Your task to perform on an android device: open a bookmark in the chrome app Image 0: 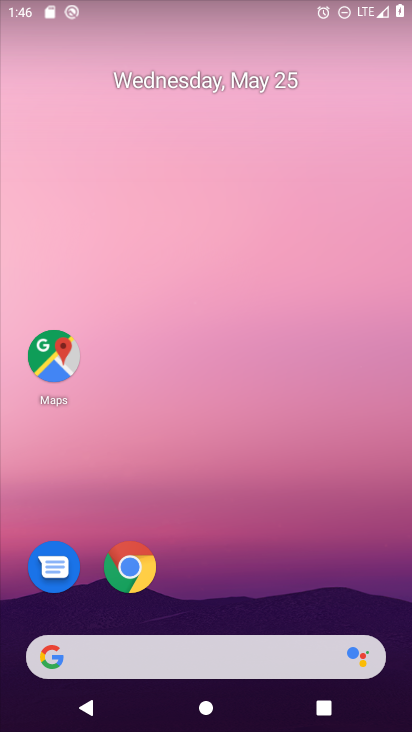
Step 0: click (128, 568)
Your task to perform on an android device: open a bookmark in the chrome app Image 1: 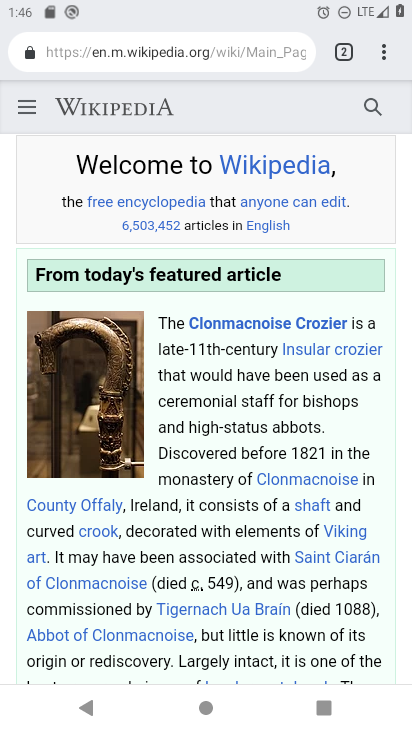
Step 1: click (380, 52)
Your task to perform on an android device: open a bookmark in the chrome app Image 2: 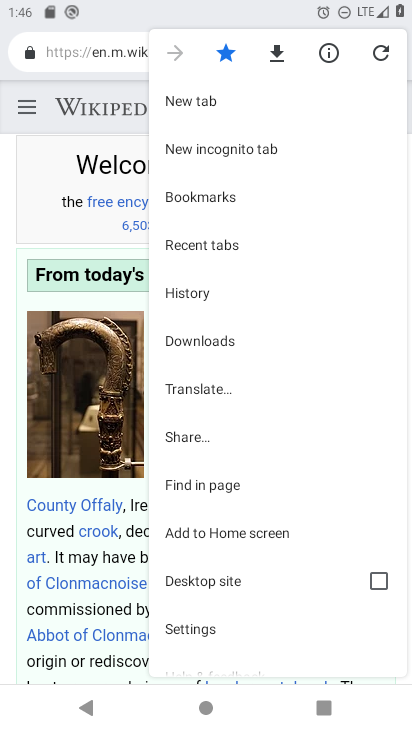
Step 2: click (198, 197)
Your task to perform on an android device: open a bookmark in the chrome app Image 3: 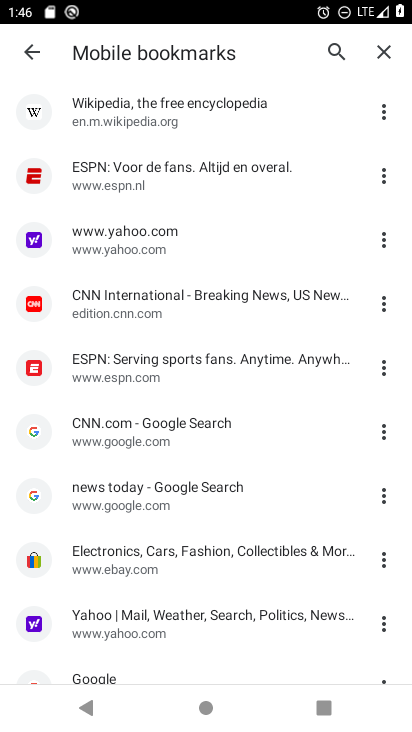
Step 3: click (98, 562)
Your task to perform on an android device: open a bookmark in the chrome app Image 4: 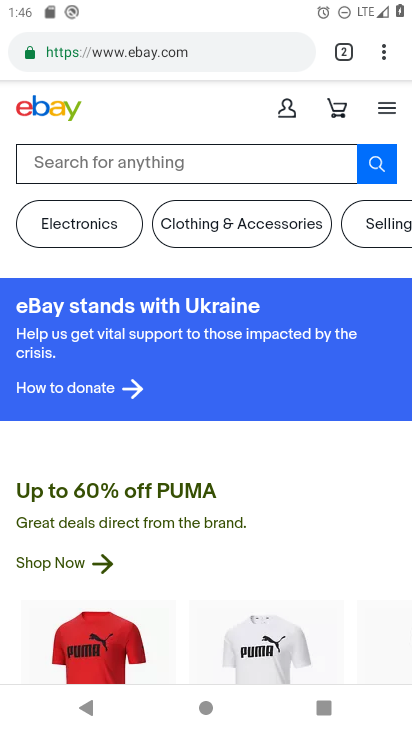
Step 4: task complete